Your task to perform on an android device: Go to privacy settings Image 0: 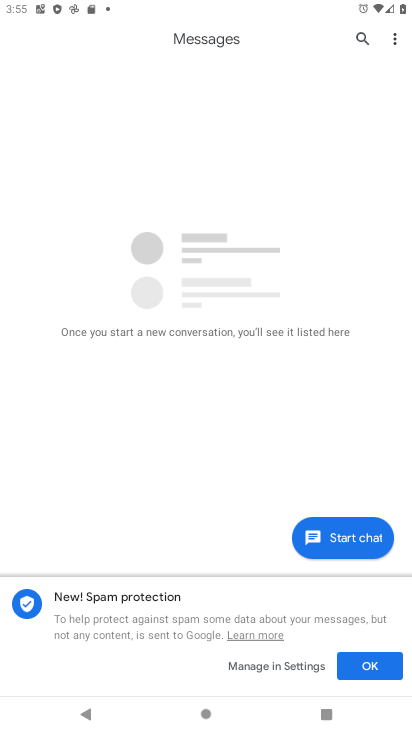
Step 0: press home button
Your task to perform on an android device: Go to privacy settings Image 1: 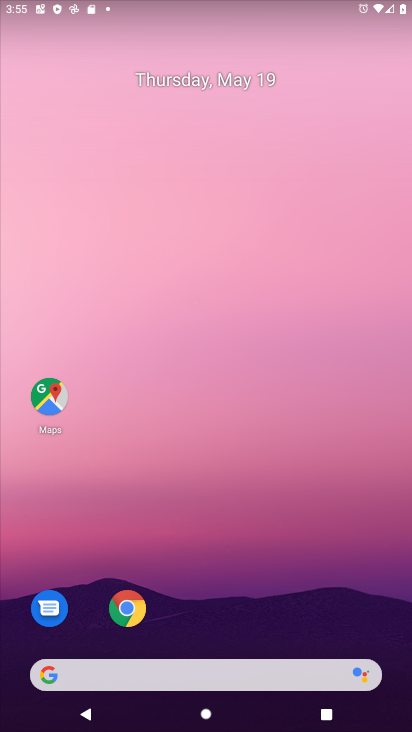
Step 1: drag from (278, 620) to (216, 180)
Your task to perform on an android device: Go to privacy settings Image 2: 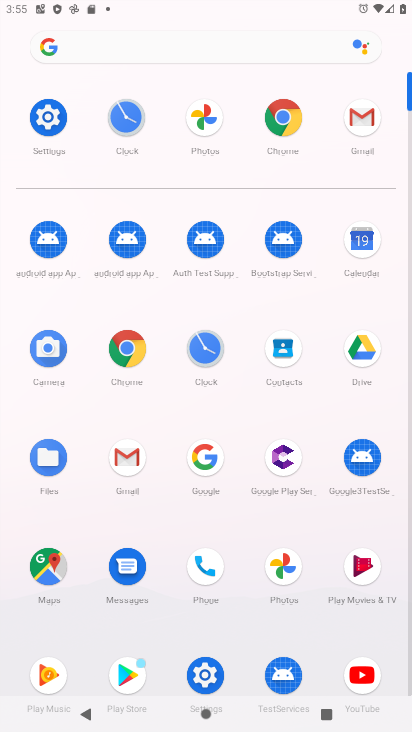
Step 2: click (46, 132)
Your task to perform on an android device: Go to privacy settings Image 3: 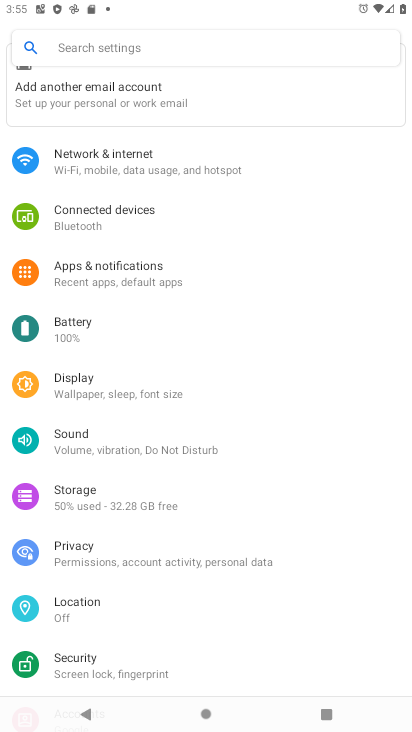
Step 3: click (182, 547)
Your task to perform on an android device: Go to privacy settings Image 4: 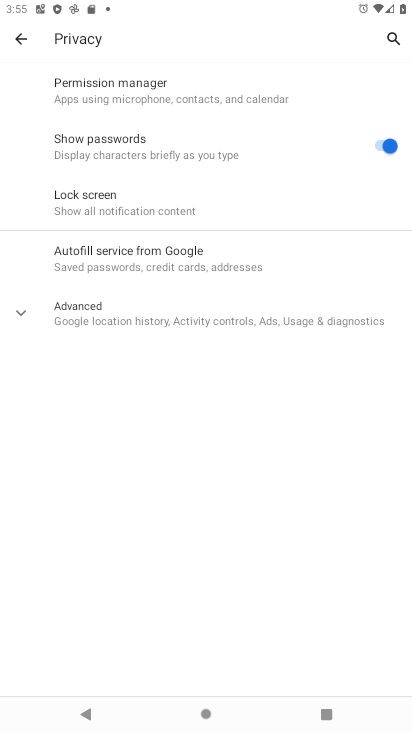
Step 4: task complete